Your task to perform on an android device: open app "Lyft - Rideshare, Bikes, Scooters & Transit" (install if not already installed) Image 0: 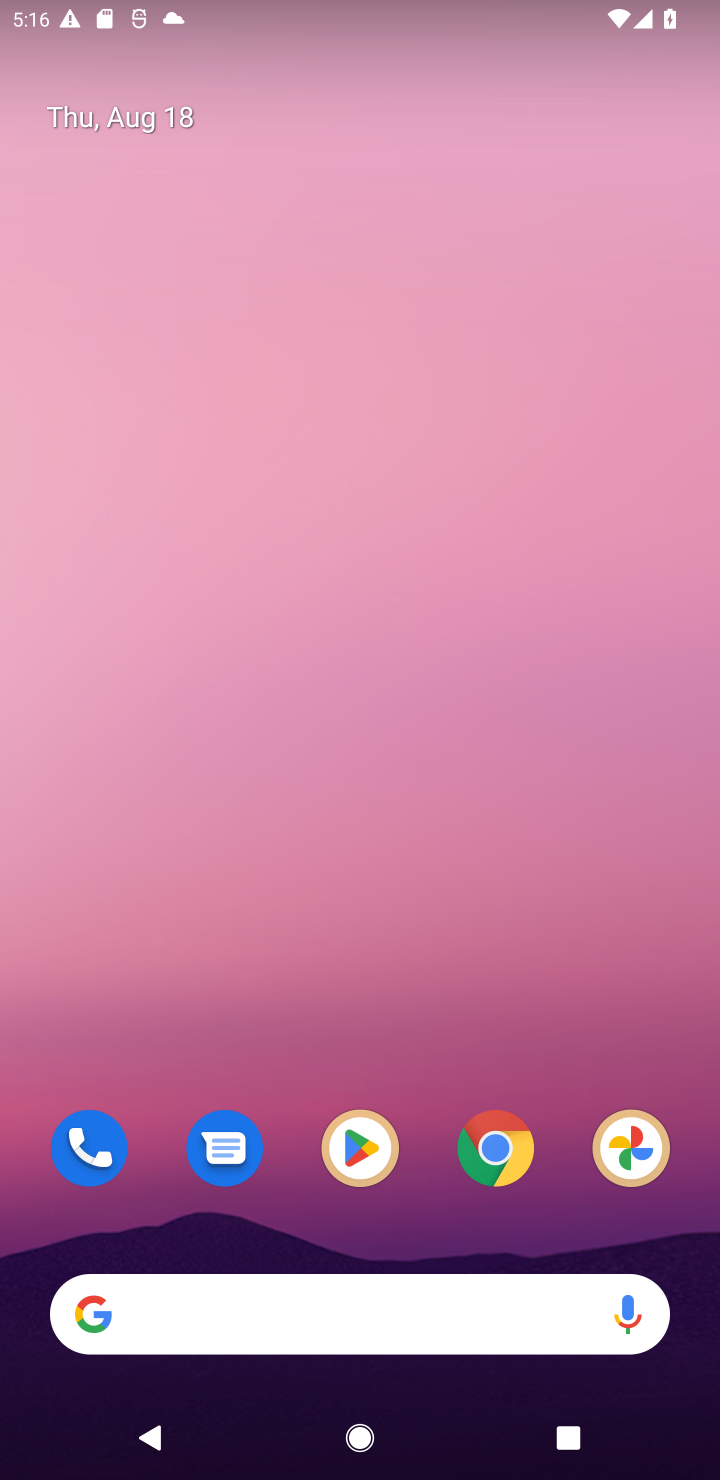
Step 0: drag from (420, 1259) to (465, 102)
Your task to perform on an android device: open app "Lyft - Rideshare, Bikes, Scooters & Transit" (install if not already installed) Image 1: 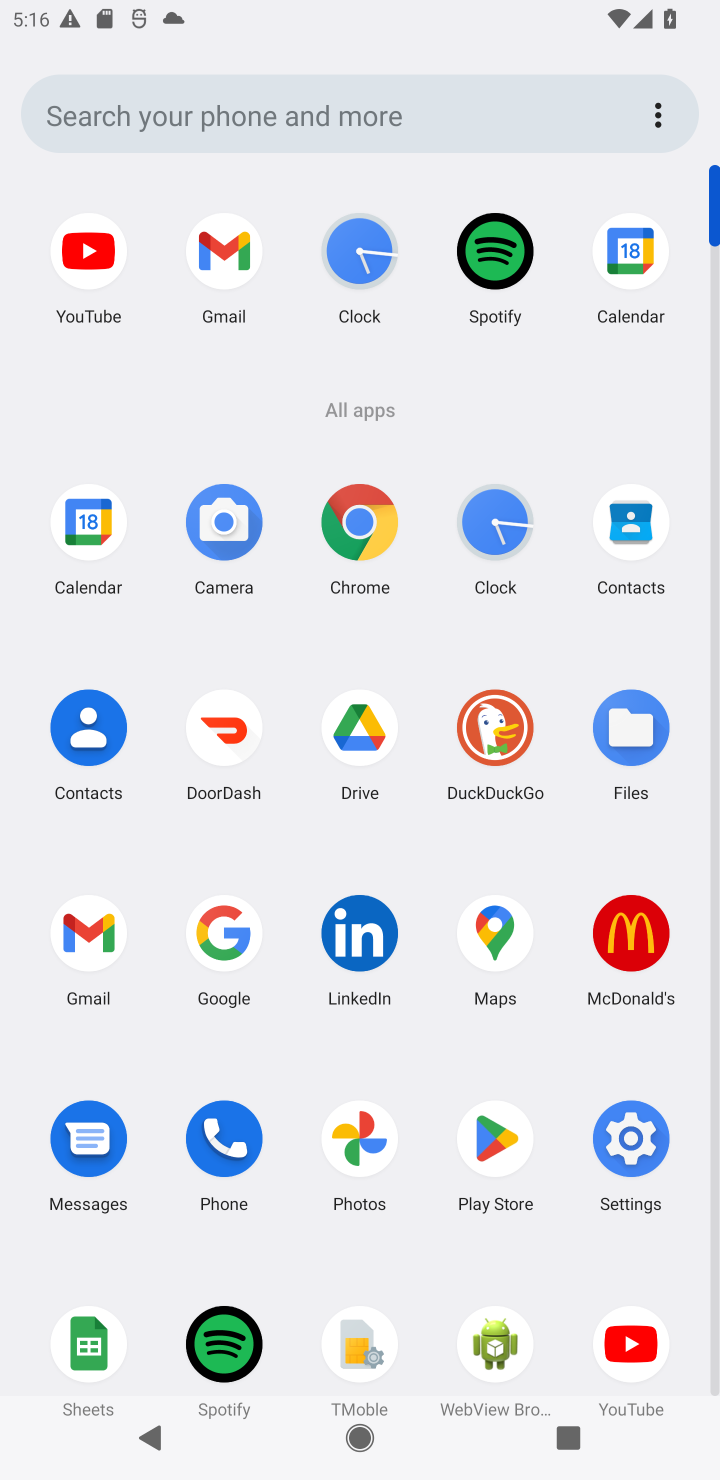
Step 1: click (490, 1150)
Your task to perform on an android device: open app "Lyft - Rideshare, Bikes, Scooters & Transit" (install if not already installed) Image 2: 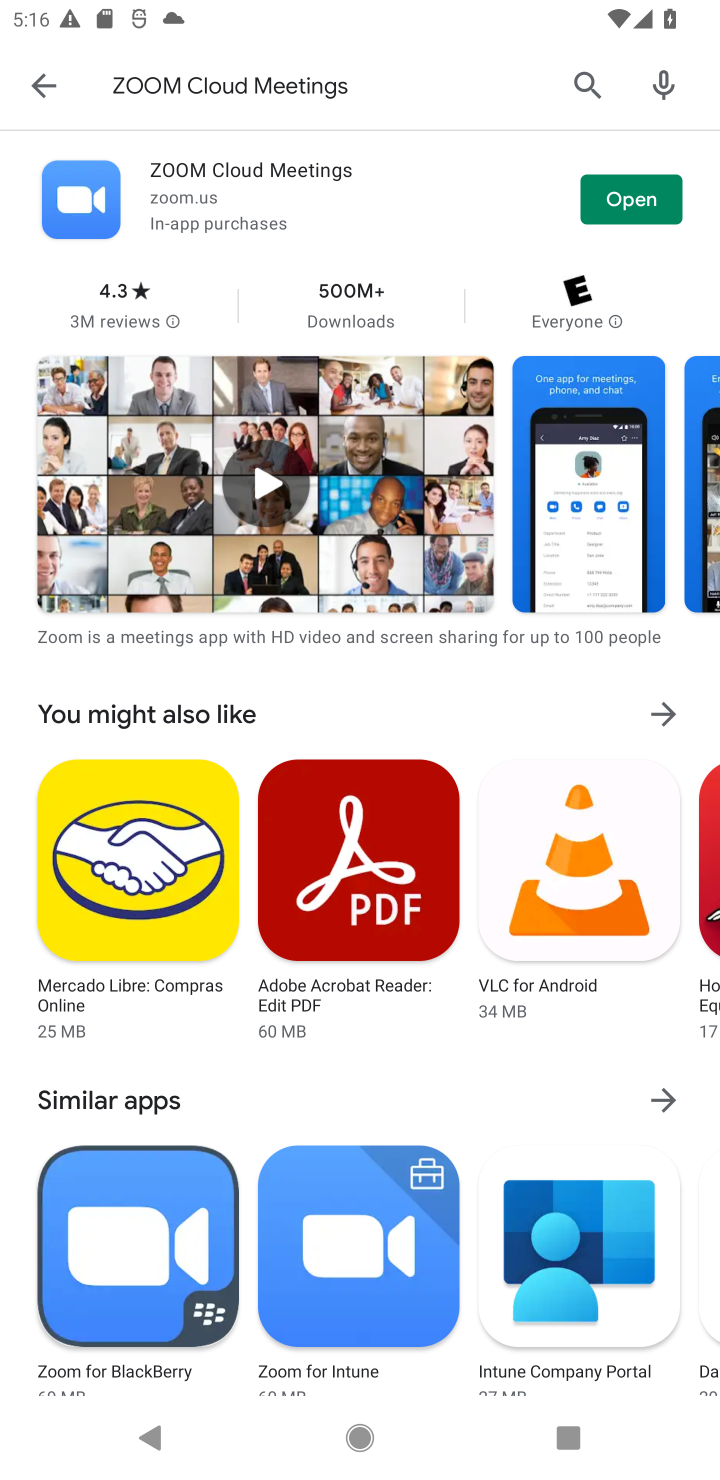
Step 2: press back button
Your task to perform on an android device: open app "Lyft - Rideshare, Bikes, Scooters & Transit" (install if not already installed) Image 3: 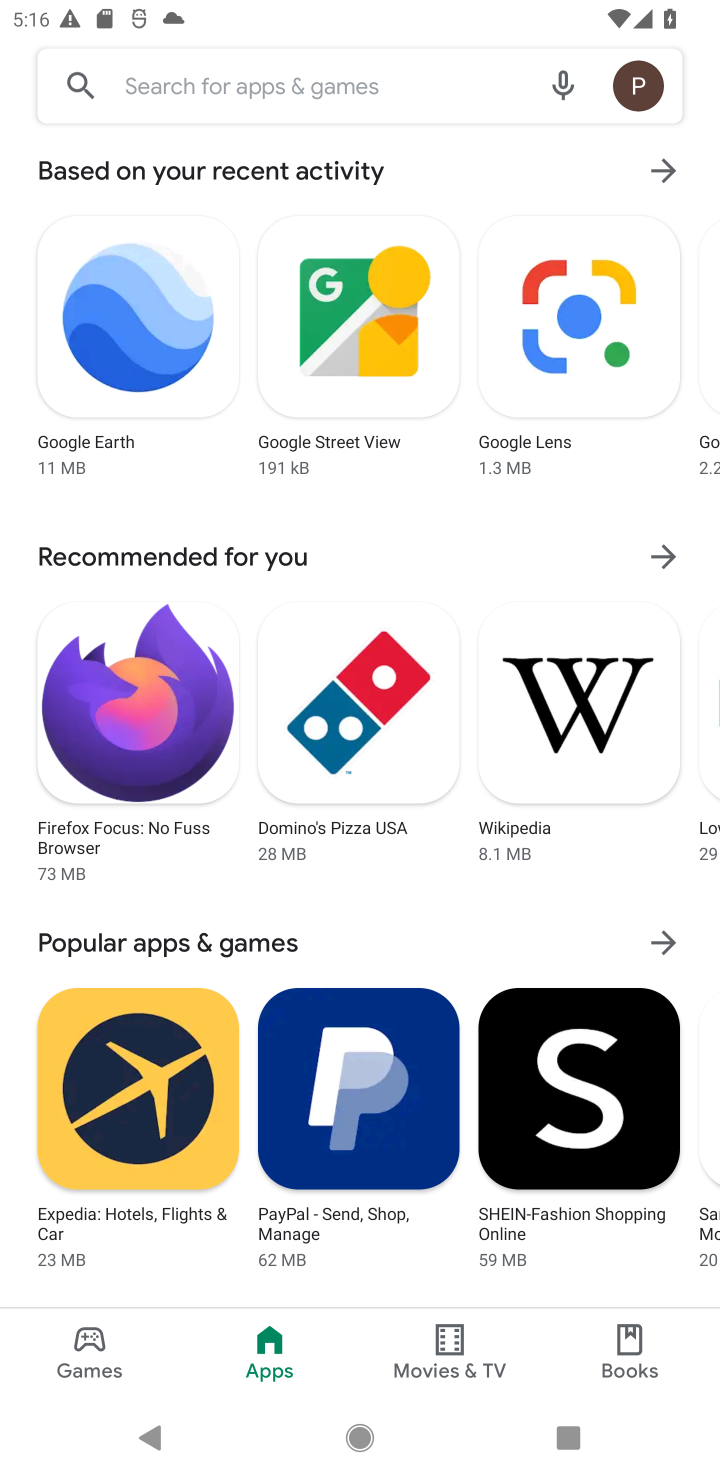
Step 3: click (310, 113)
Your task to perform on an android device: open app "Lyft - Rideshare, Bikes, Scooters & Transit" (install if not already installed) Image 4: 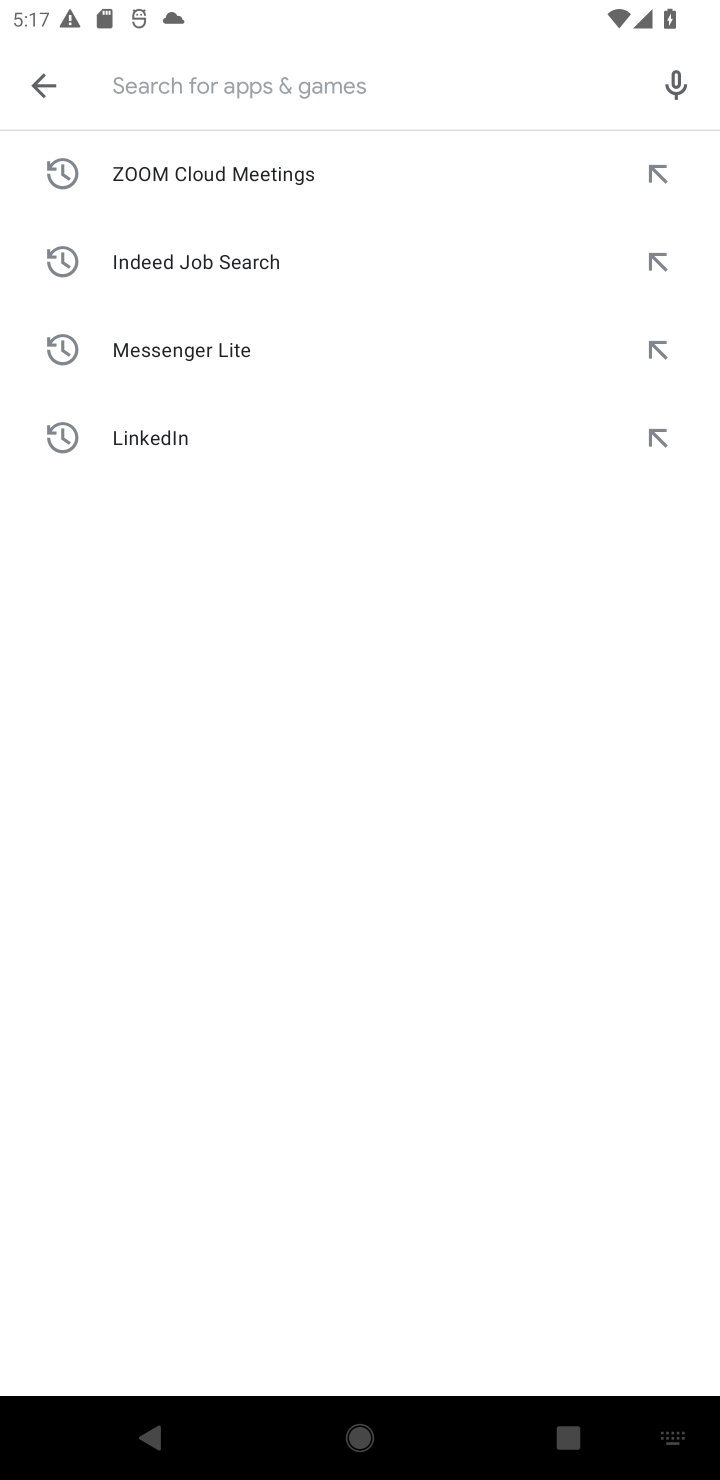
Step 4: type "Lyft - Rideshare, Bikes, Scooters & Transit"
Your task to perform on an android device: open app "Lyft - Rideshare, Bikes, Scooters & Transit" (install if not already installed) Image 5: 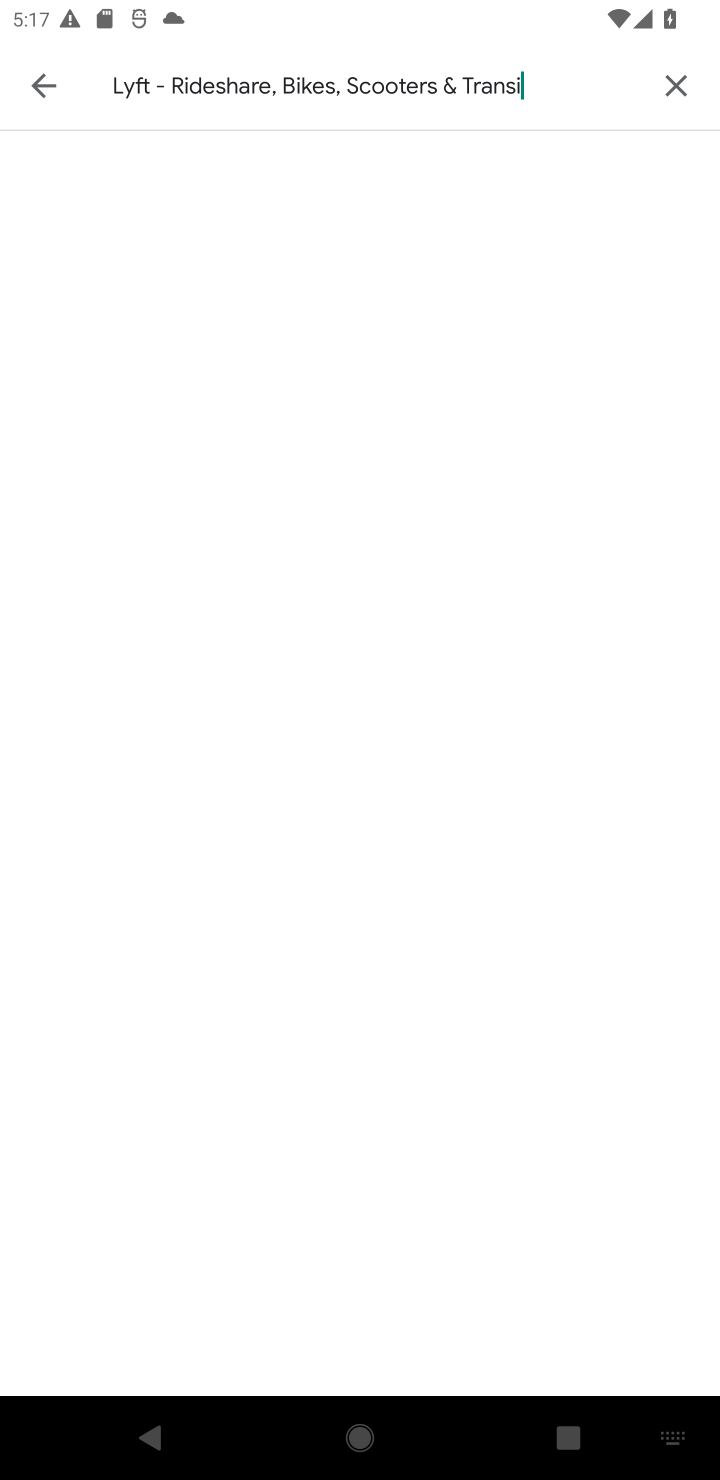
Step 5: press enter
Your task to perform on an android device: open app "Lyft - Rideshare, Bikes, Scooters & Transit" (install if not already installed) Image 6: 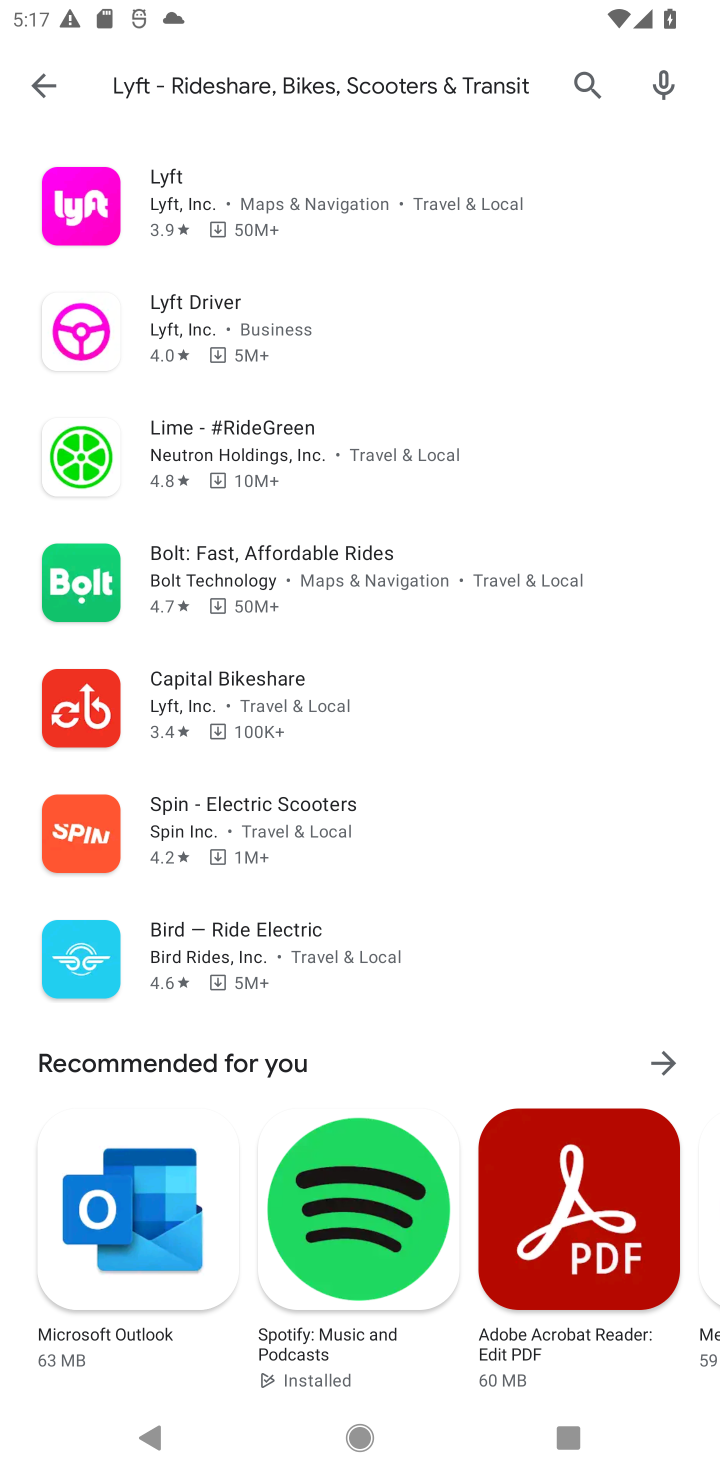
Step 6: click (249, 239)
Your task to perform on an android device: open app "Lyft - Rideshare, Bikes, Scooters & Transit" (install if not already installed) Image 7: 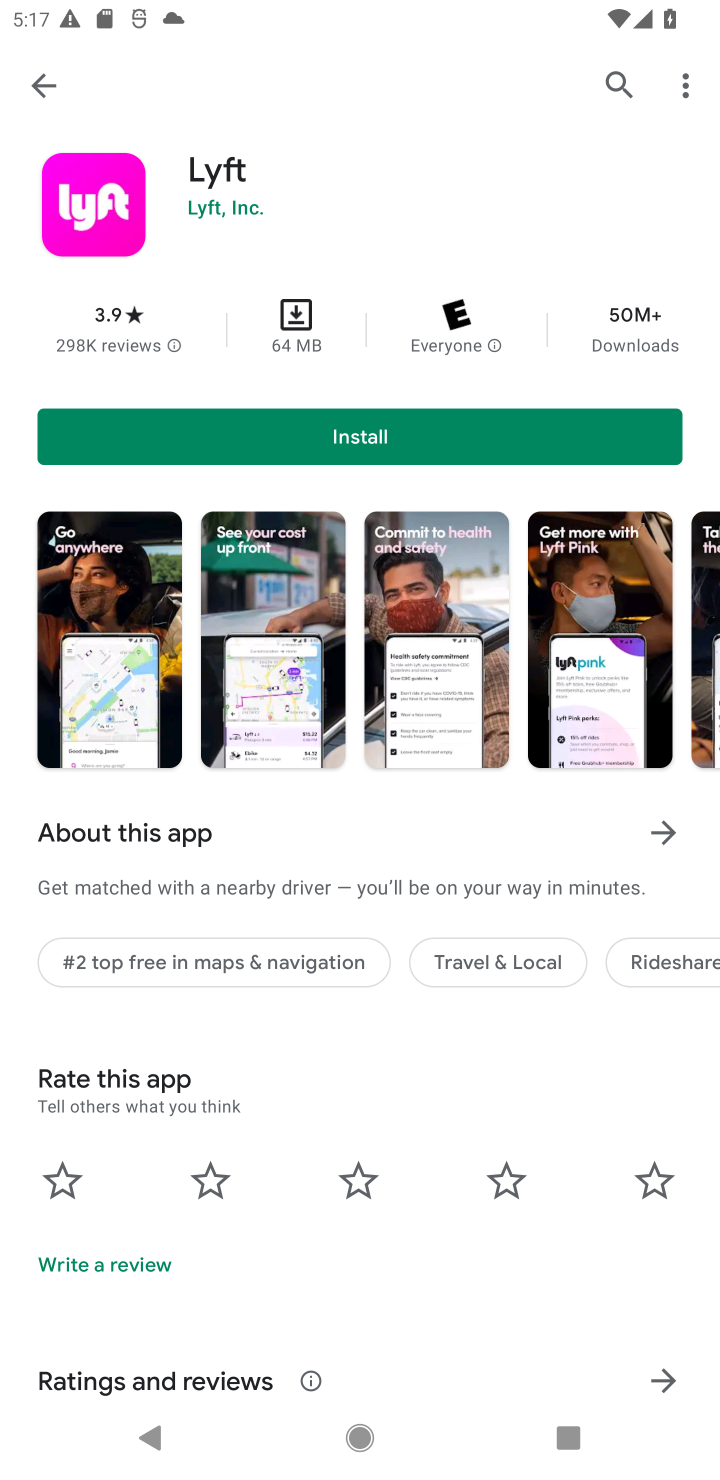
Step 7: click (335, 420)
Your task to perform on an android device: open app "Lyft - Rideshare, Bikes, Scooters & Transit" (install if not already installed) Image 8: 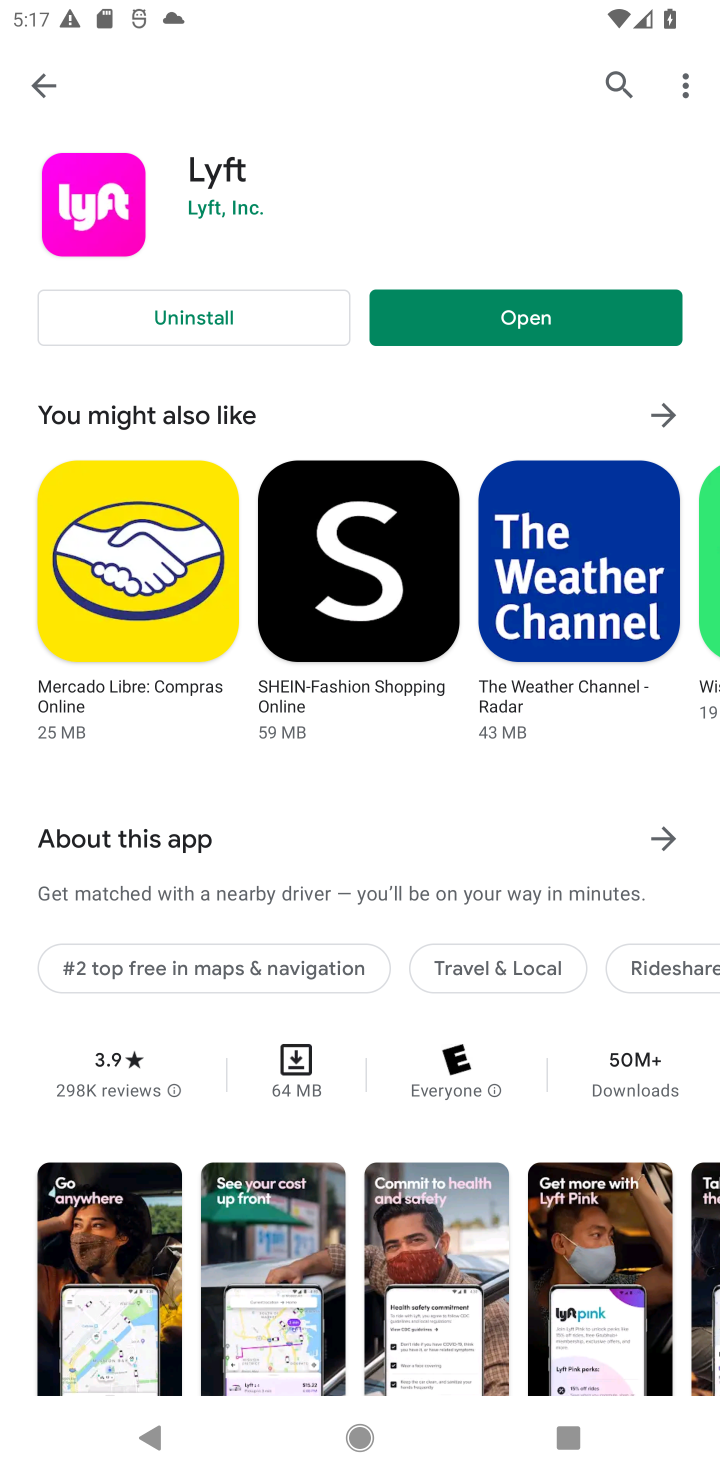
Step 8: click (551, 307)
Your task to perform on an android device: open app "Lyft - Rideshare, Bikes, Scooters & Transit" (install if not already installed) Image 9: 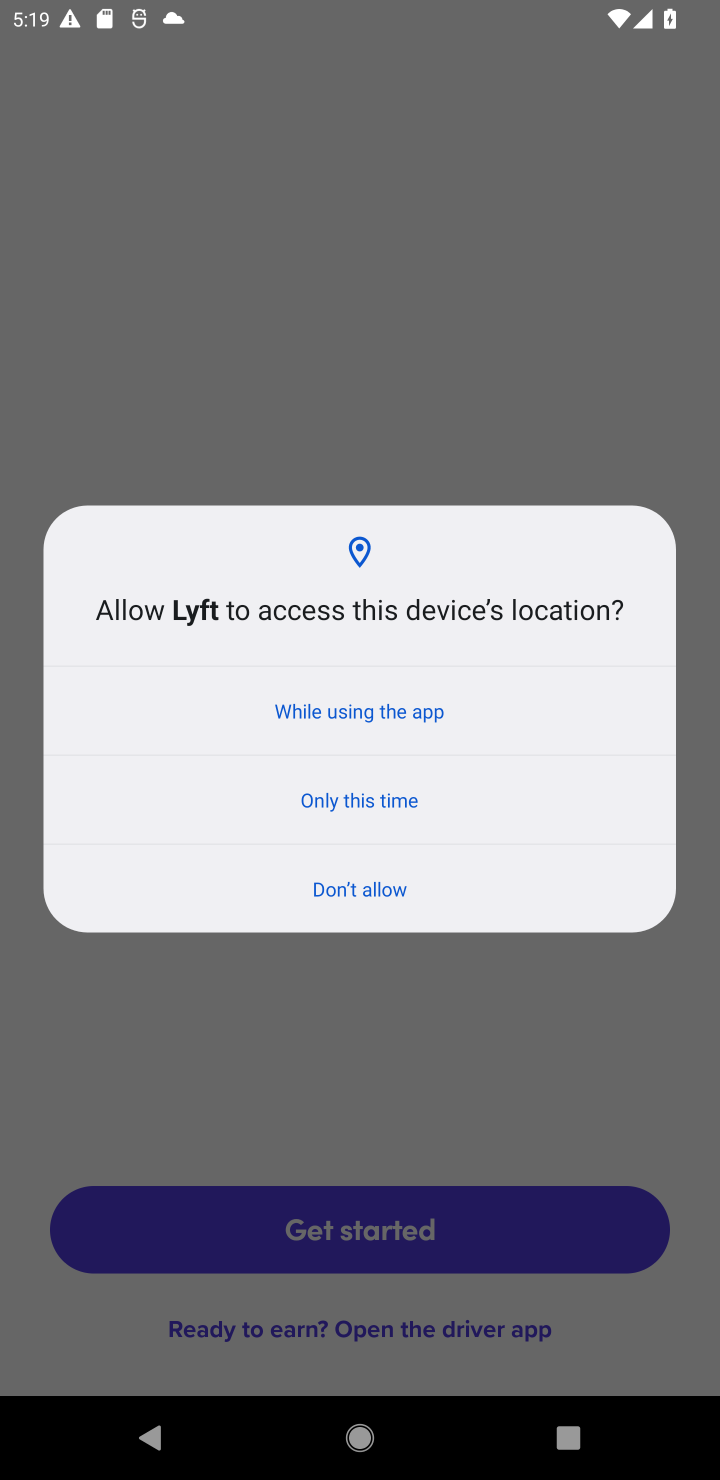
Step 9: task complete